Your task to perform on an android device: Find coffee shops on Maps Image 0: 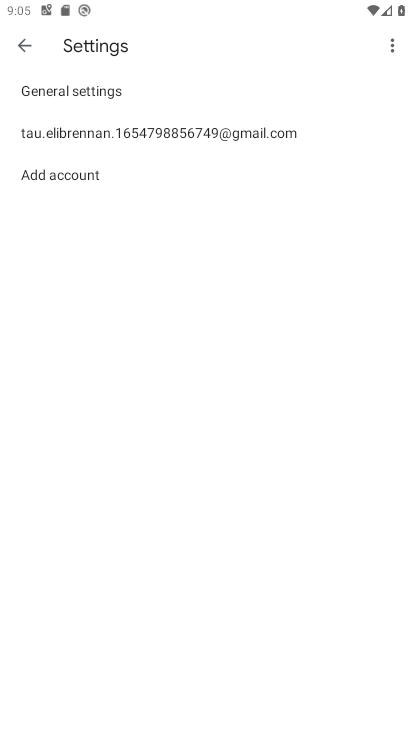
Step 0: press home button
Your task to perform on an android device: Find coffee shops on Maps Image 1: 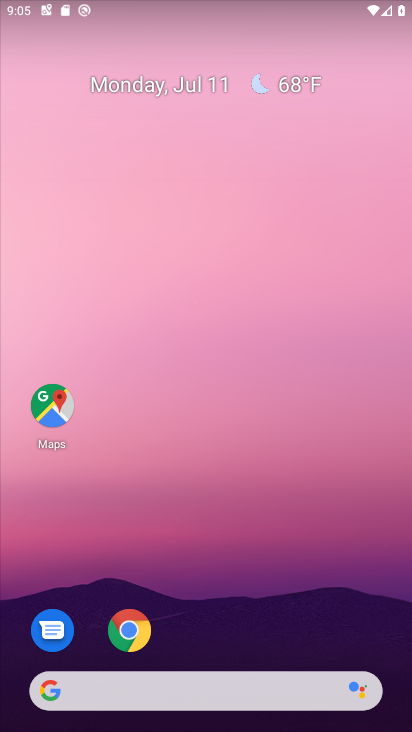
Step 1: drag from (176, 519) to (343, 21)
Your task to perform on an android device: Find coffee shops on Maps Image 2: 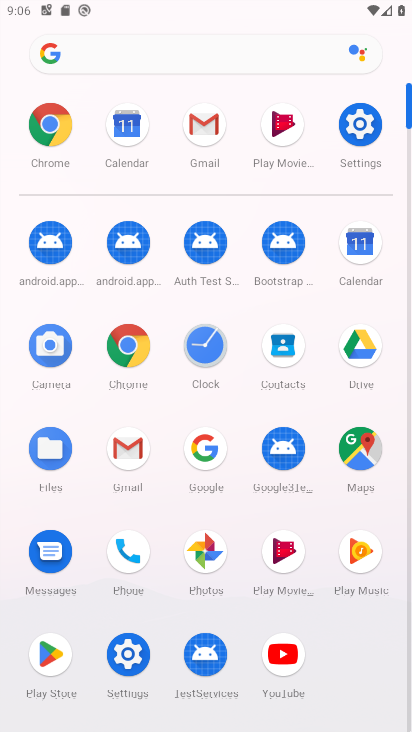
Step 2: click (372, 454)
Your task to perform on an android device: Find coffee shops on Maps Image 3: 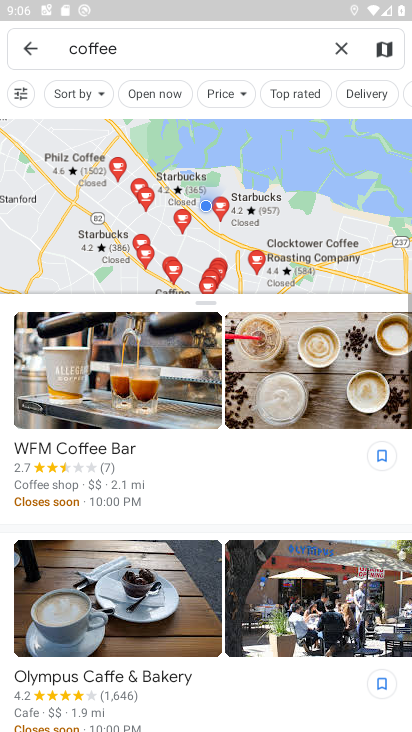
Step 3: click (226, 49)
Your task to perform on an android device: Find coffee shops on Maps Image 4: 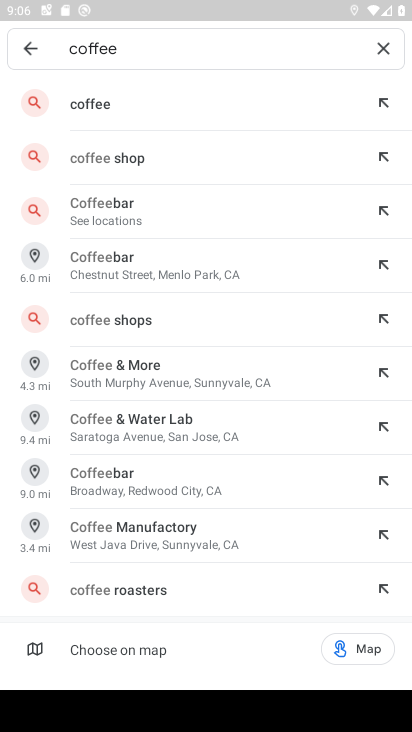
Step 4: type " shops"
Your task to perform on an android device: Find coffee shops on Maps Image 5: 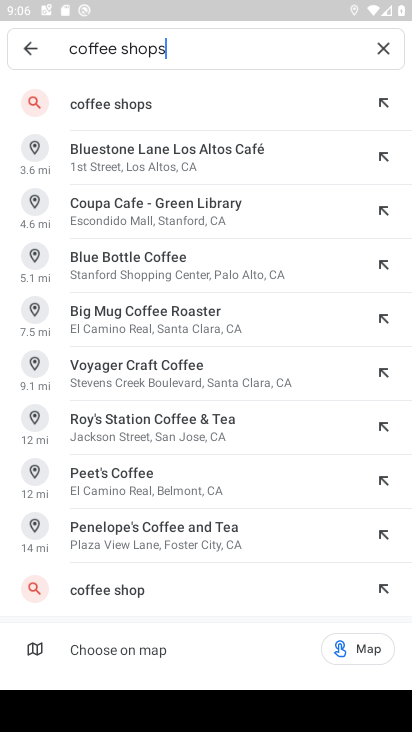
Step 5: click (190, 111)
Your task to perform on an android device: Find coffee shops on Maps Image 6: 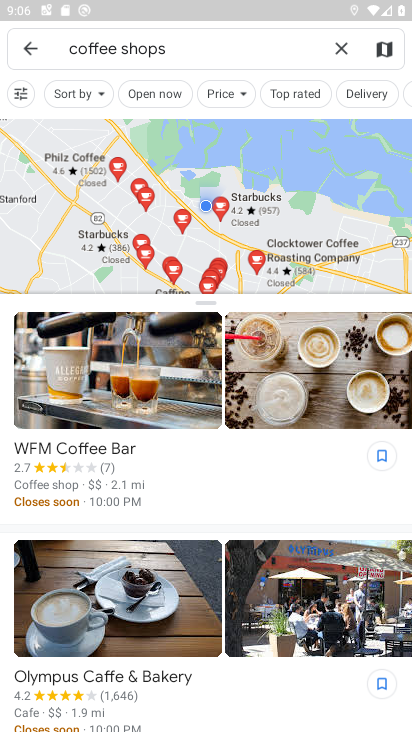
Step 6: task complete